Your task to perform on an android device: Go to location settings Image 0: 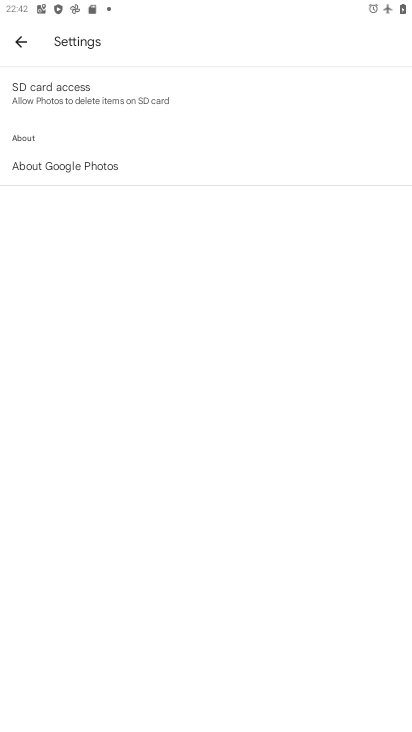
Step 0: click (13, 47)
Your task to perform on an android device: Go to location settings Image 1: 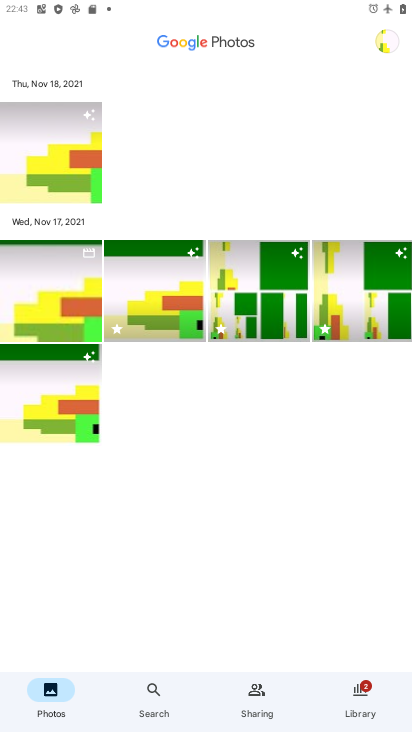
Step 1: press home button
Your task to perform on an android device: Go to location settings Image 2: 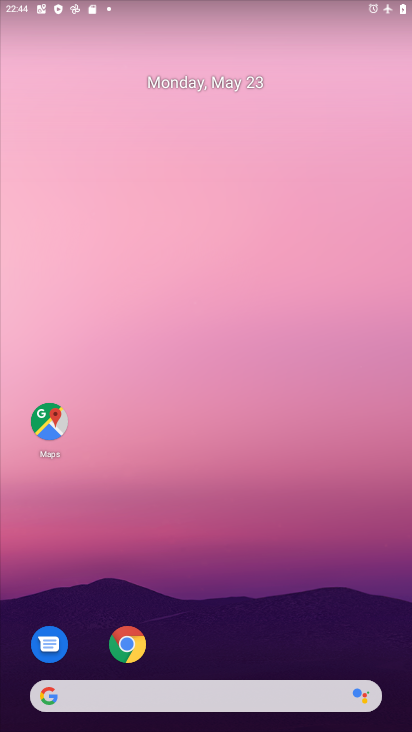
Step 2: drag from (92, 700) to (184, 9)
Your task to perform on an android device: Go to location settings Image 3: 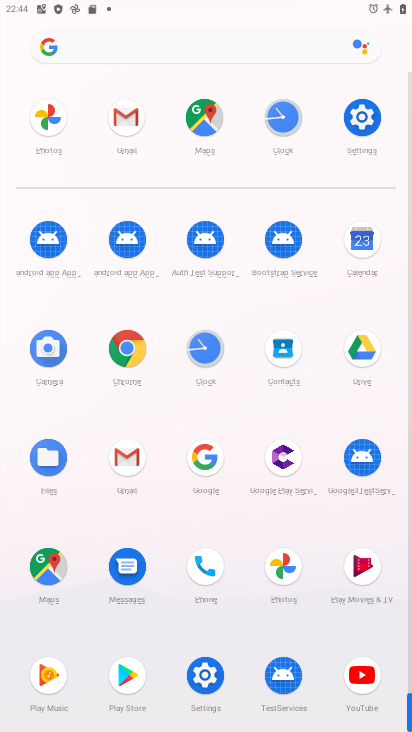
Step 3: click (374, 114)
Your task to perform on an android device: Go to location settings Image 4: 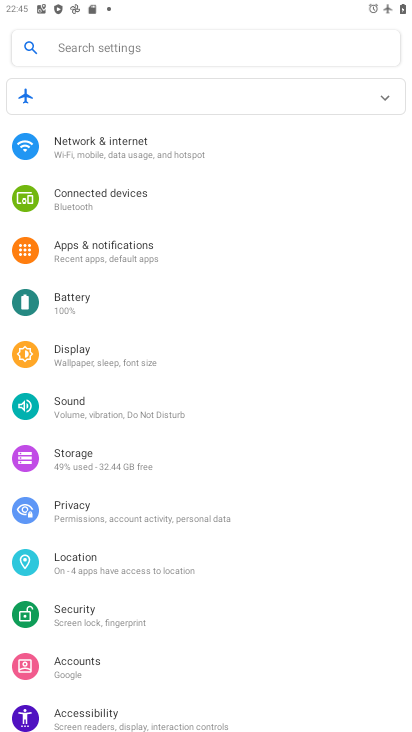
Step 4: click (129, 569)
Your task to perform on an android device: Go to location settings Image 5: 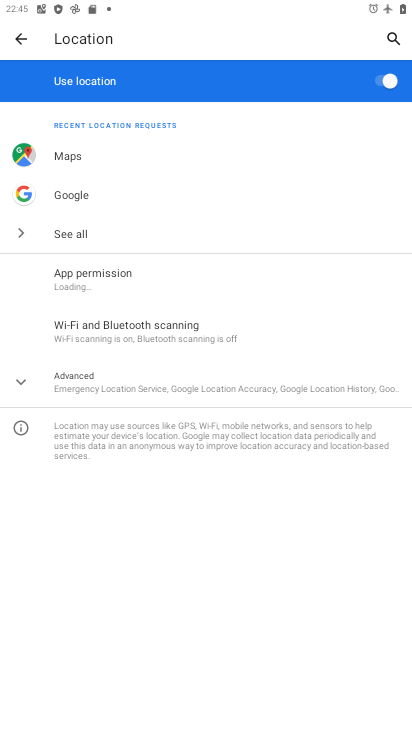
Step 5: task complete